Your task to perform on an android device: toggle notifications settings in the gmail app Image 0: 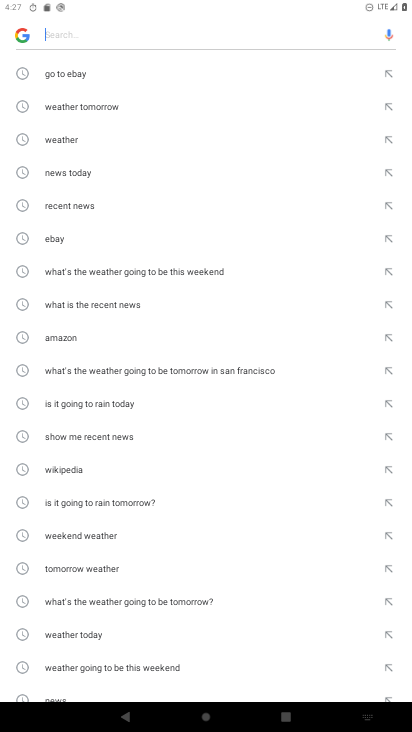
Step 0: press home button
Your task to perform on an android device: toggle notifications settings in the gmail app Image 1: 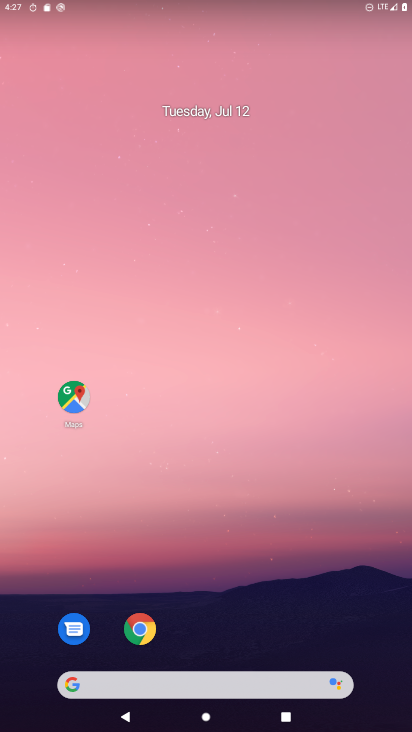
Step 1: drag from (220, 630) to (248, 105)
Your task to perform on an android device: toggle notifications settings in the gmail app Image 2: 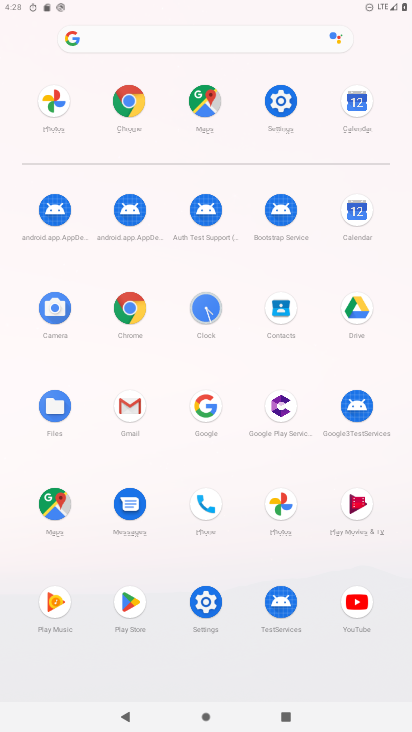
Step 2: click (130, 411)
Your task to perform on an android device: toggle notifications settings in the gmail app Image 3: 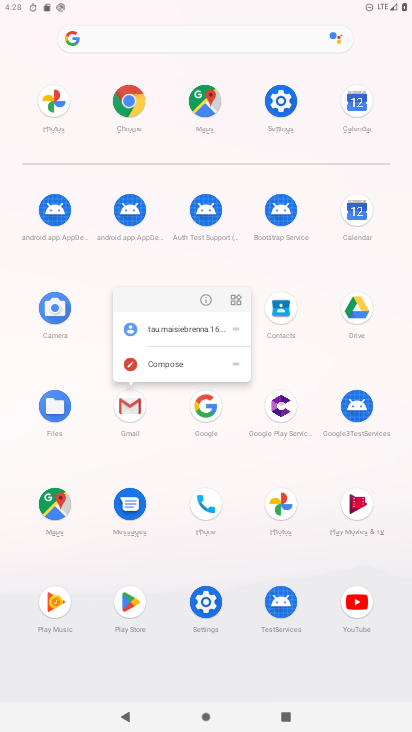
Step 3: click (193, 296)
Your task to perform on an android device: toggle notifications settings in the gmail app Image 4: 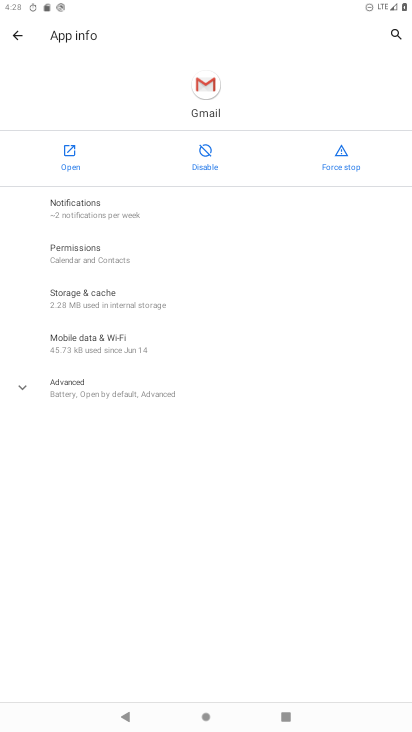
Step 4: click (63, 197)
Your task to perform on an android device: toggle notifications settings in the gmail app Image 5: 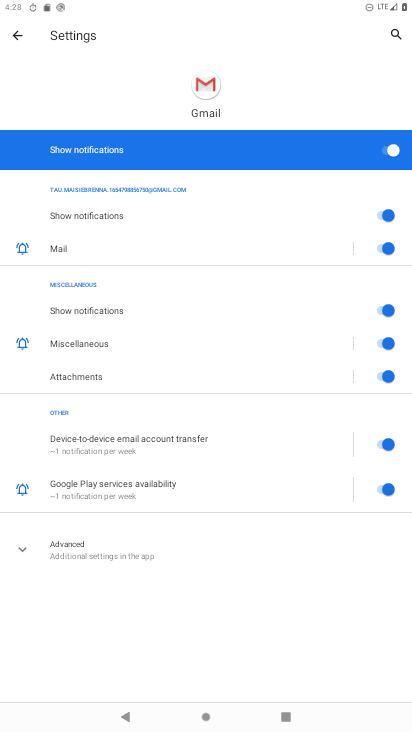
Step 5: click (386, 153)
Your task to perform on an android device: toggle notifications settings in the gmail app Image 6: 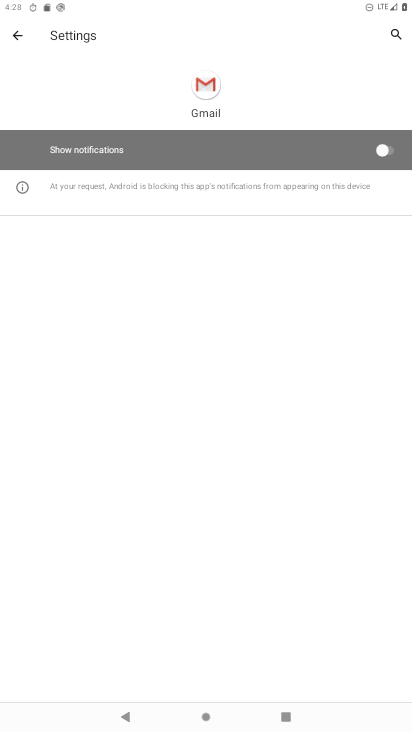
Step 6: task complete